Your task to perform on an android device: Open battery settings Image 0: 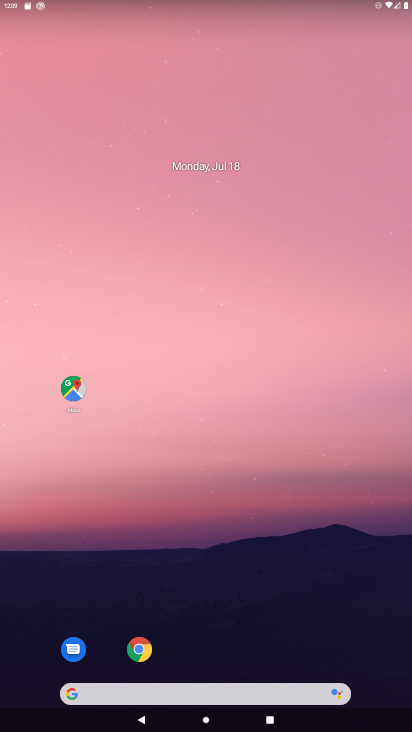
Step 0: drag from (156, 7) to (89, 498)
Your task to perform on an android device: Open battery settings Image 1: 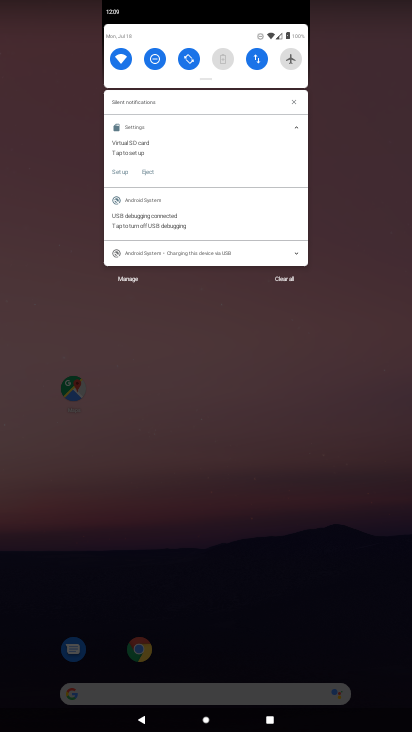
Step 1: click (227, 63)
Your task to perform on an android device: Open battery settings Image 2: 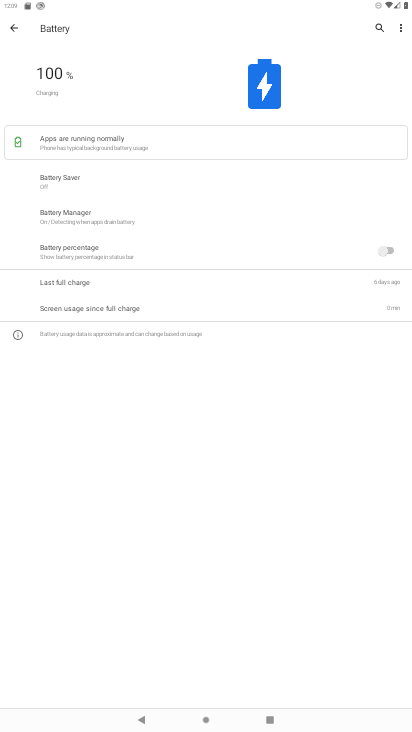
Step 2: task complete